Your task to perform on an android device: manage bookmarks in the chrome app Image 0: 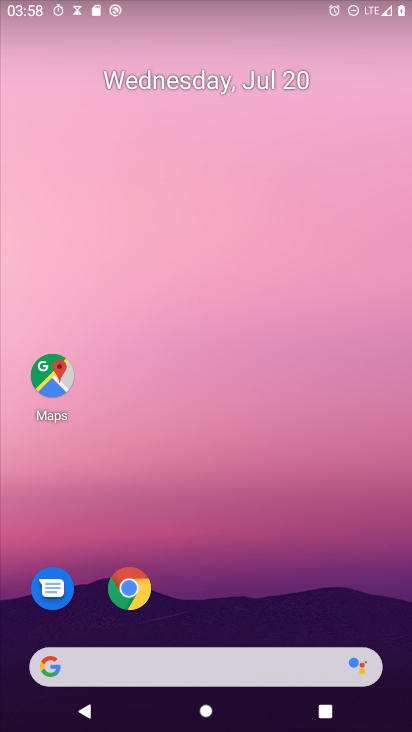
Step 0: drag from (213, 641) to (115, 9)
Your task to perform on an android device: manage bookmarks in the chrome app Image 1: 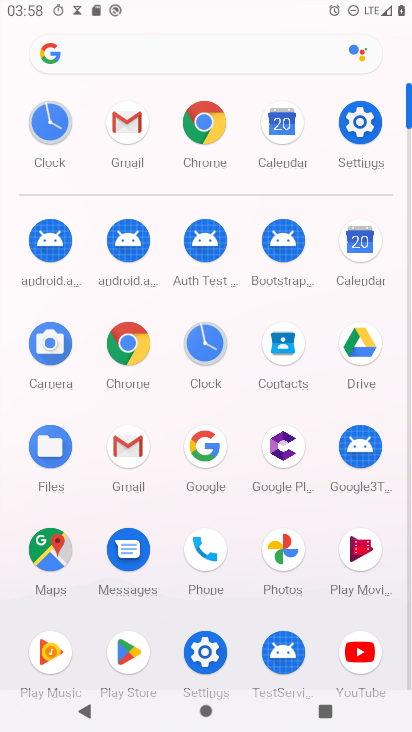
Step 1: click (122, 347)
Your task to perform on an android device: manage bookmarks in the chrome app Image 2: 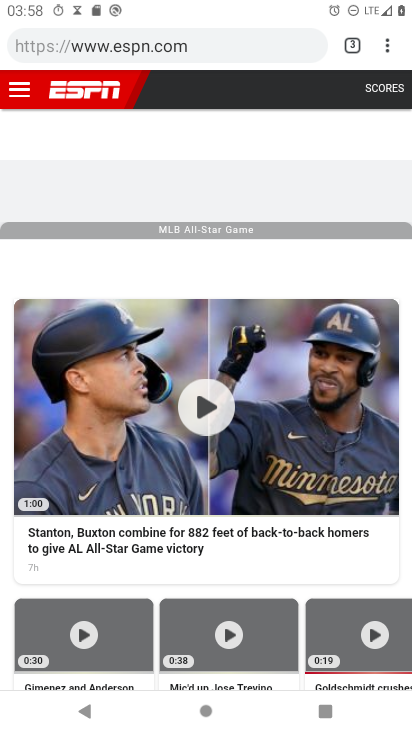
Step 2: click (395, 54)
Your task to perform on an android device: manage bookmarks in the chrome app Image 3: 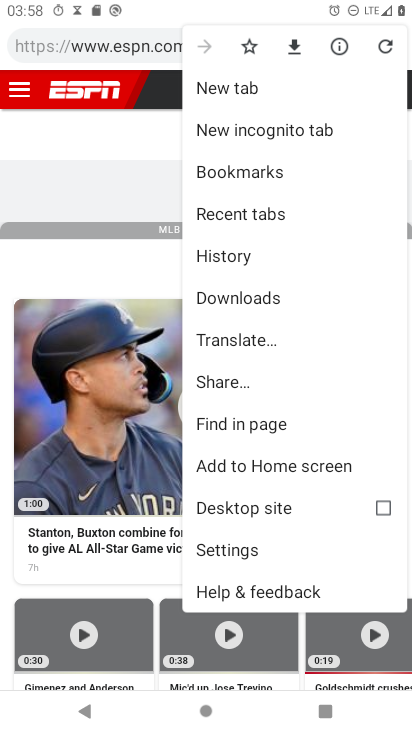
Step 3: click (219, 560)
Your task to perform on an android device: manage bookmarks in the chrome app Image 4: 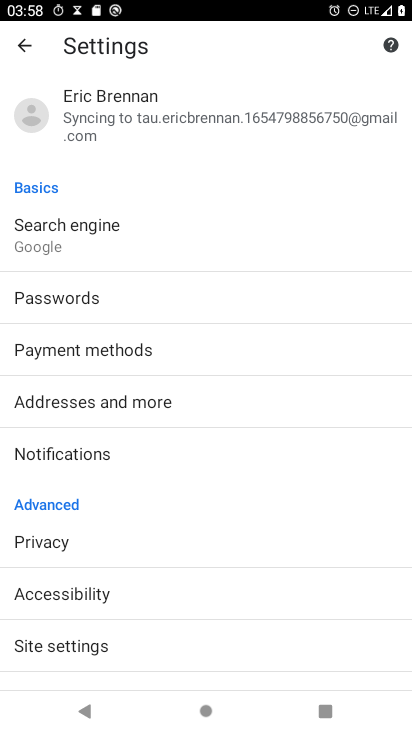
Step 4: task complete